Your task to perform on an android device: turn off picture-in-picture Image 0: 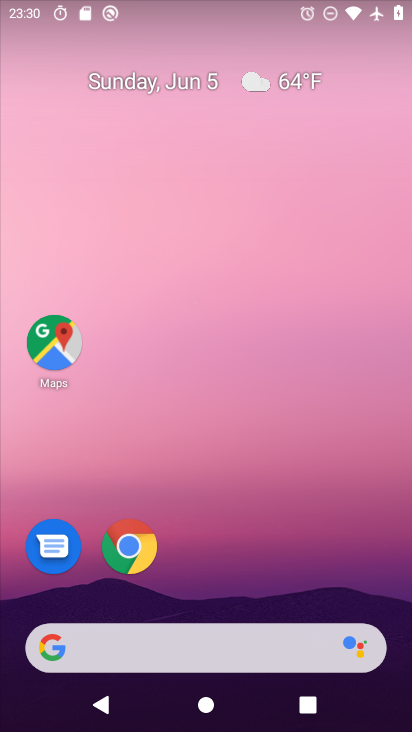
Step 0: drag from (218, 546) to (251, 27)
Your task to perform on an android device: turn off picture-in-picture Image 1: 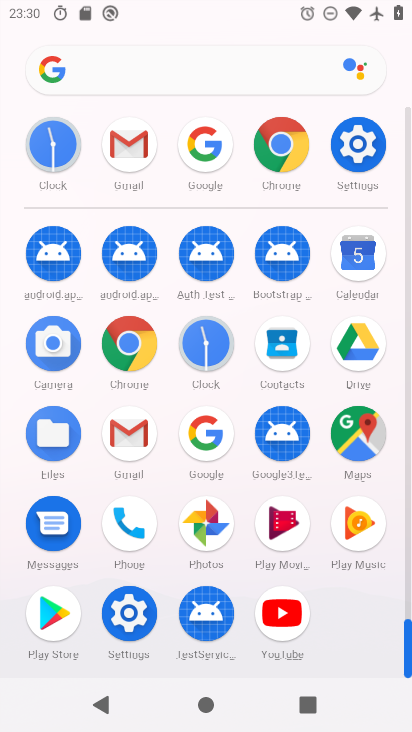
Step 1: click (356, 151)
Your task to perform on an android device: turn off picture-in-picture Image 2: 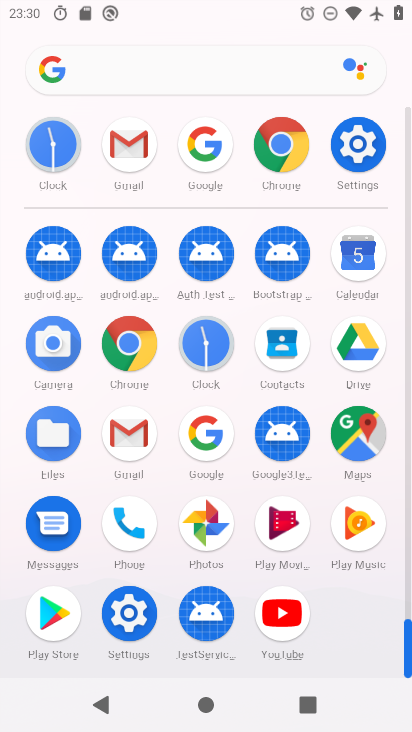
Step 2: click (356, 151)
Your task to perform on an android device: turn off picture-in-picture Image 3: 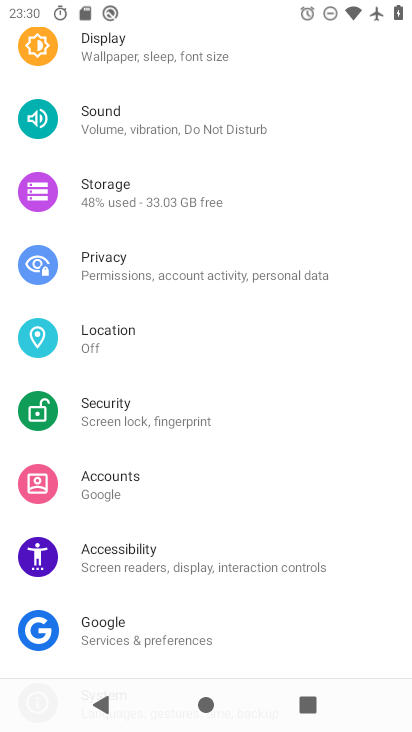
Step 3: drag from (238, 576) to (277, 0)
Your task to perform on an android device: turn off picture-in-picture Image 4: 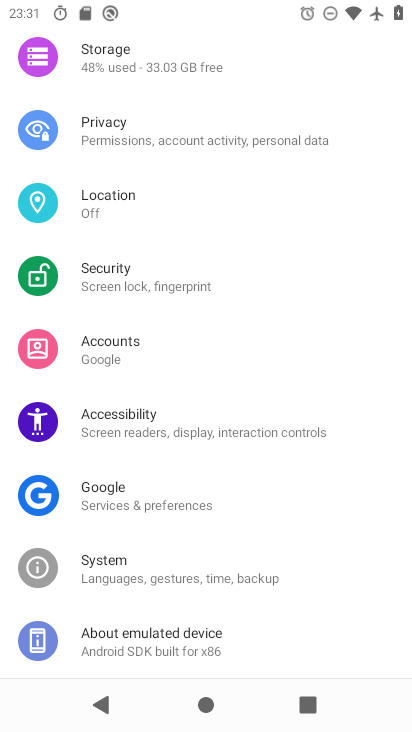
Step 4: drag from (186, 339) to (285, 728)
Your task to perform on an android device: turn off picture-in-picture Image 5: 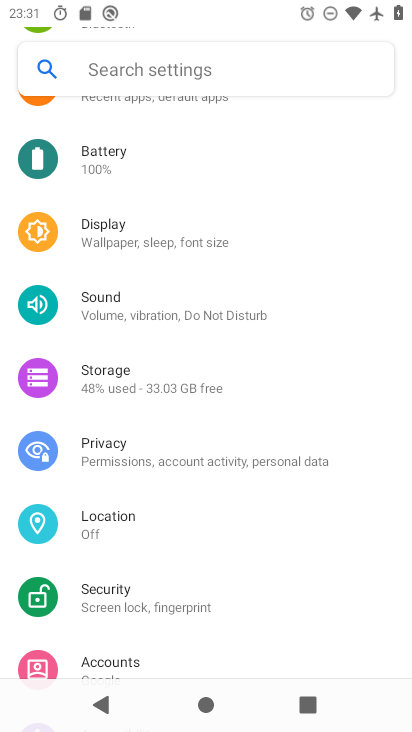
Step 5: drag from (156, 178) to (269, 605)
Your task to perform on an android device: turn off picture-in-picture Image 6: 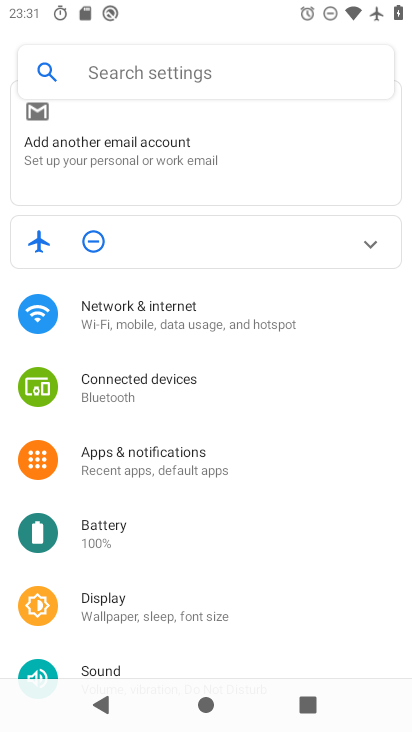
Step 6: click (163, 452)
Your task to perform on an android device: turn off picture-in-picture Image 7: 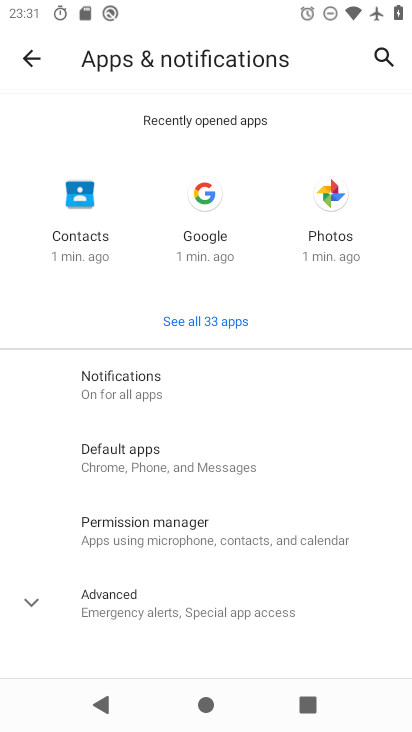
Step 7: click (193, 395)
Your task to perform on an android device: turn off picture-in-picture Image 8: 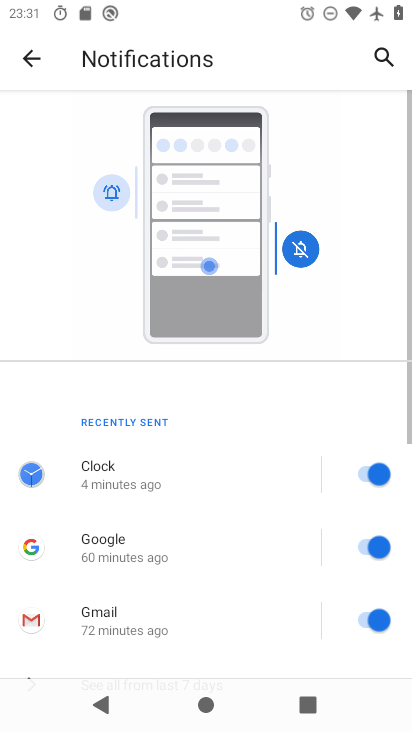
Step 8: click (28, 61)
Your task to perform on an android device: turn off picture-in-picture Image 9: 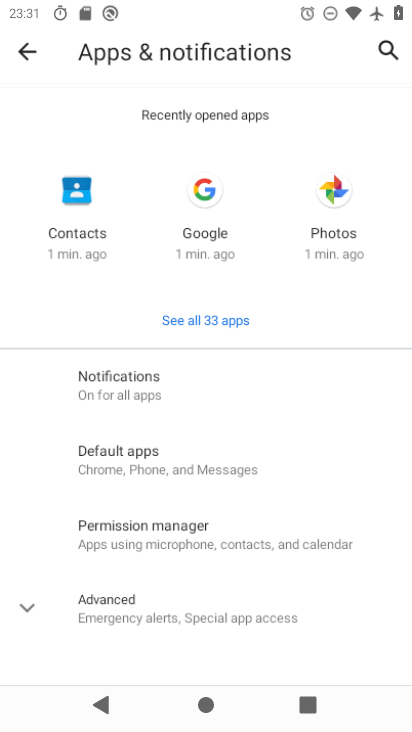
Step 9: drag from (262, 616) to (243, 78)
Your task to perform on an android device: turn off picture-in-picture Image 10: 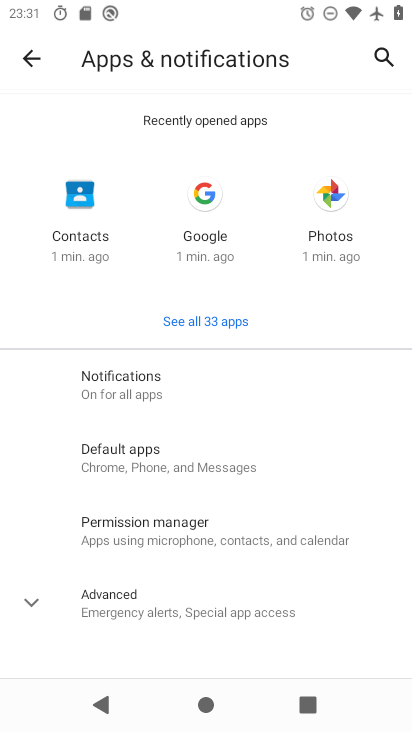
Step 10: click (202, 607)
Your task to perform on an android device: turn off picture-in-picture Image 11: 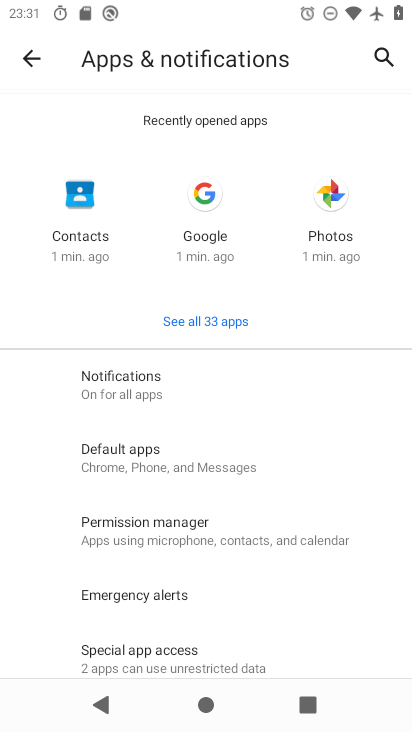
Step 11: drag from (217, 446) to (285, 83)
Your task to perform on an android device: turn off picture-in-picture Image 12: 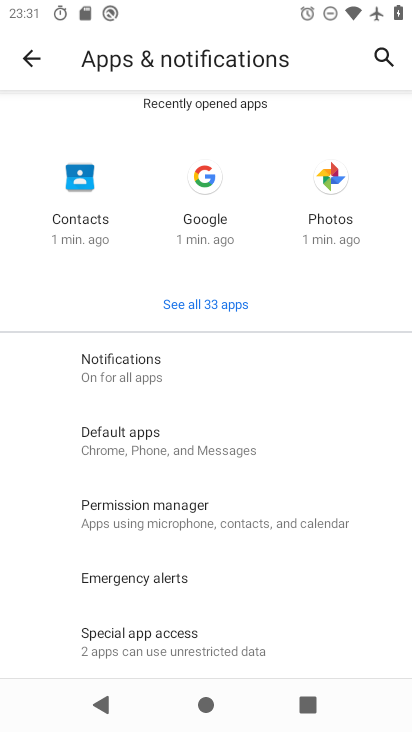
Step 12: click (186, 639)
Your task to perform on an android device: turn off picture-in-picture Image 13: 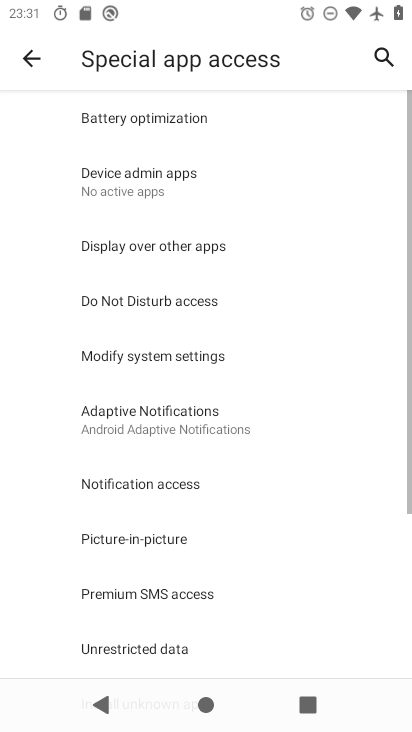
Step 13: drag from (185, 620) to (218, 187)
Your task to perform on an android device: turn off picture-in-picture Image 14: 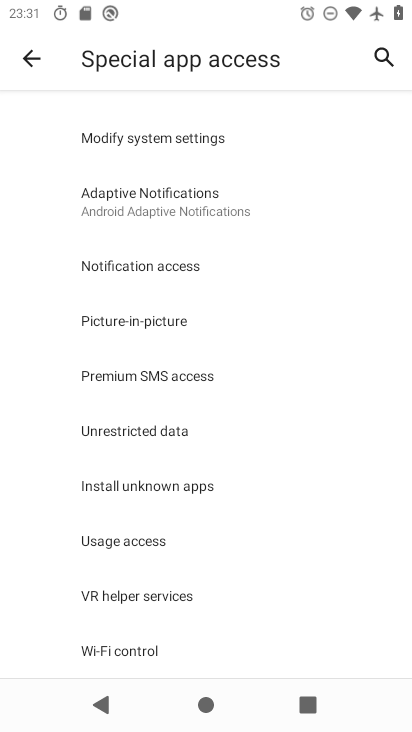
Step 14: click (156, 319)
Your task to perform on an android device: turn off picture-in-picture Image 15: 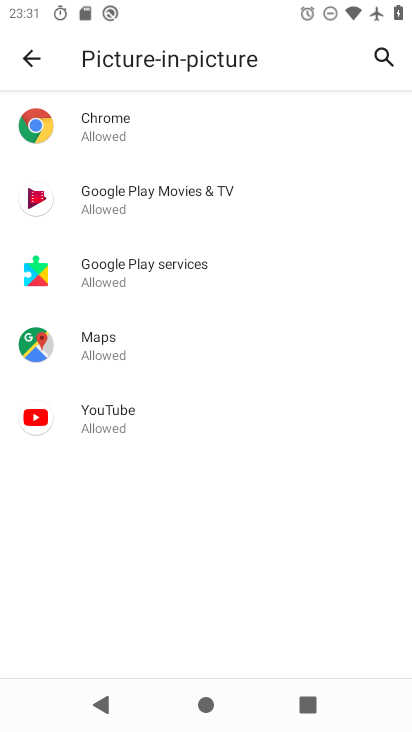
Step 15: task complete